Your task to perform on an android device: uninstall "TextNow: Call + Text Unlimited" Image 0: 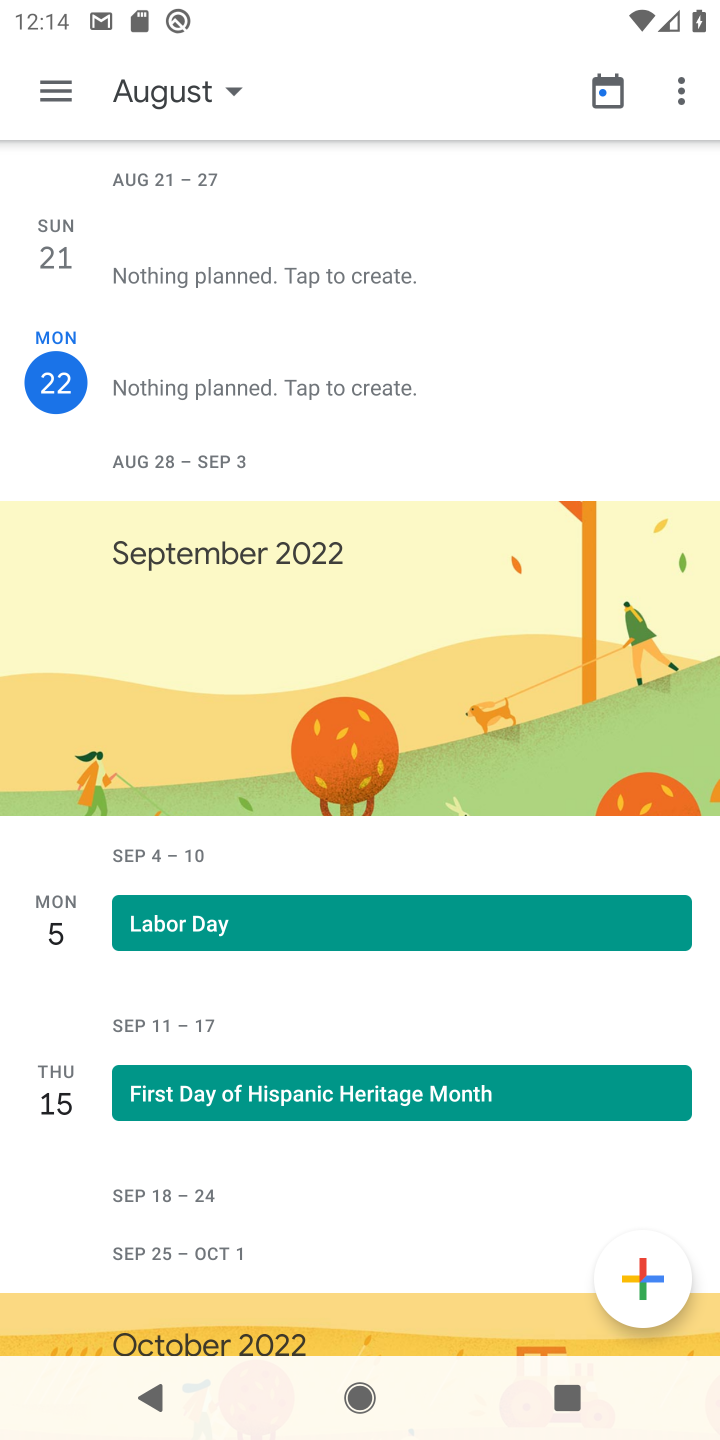
Step 0: press home button
Your task to perform on an android device: uninstall "TextNow: Call + Text Unlimited" Image 1: 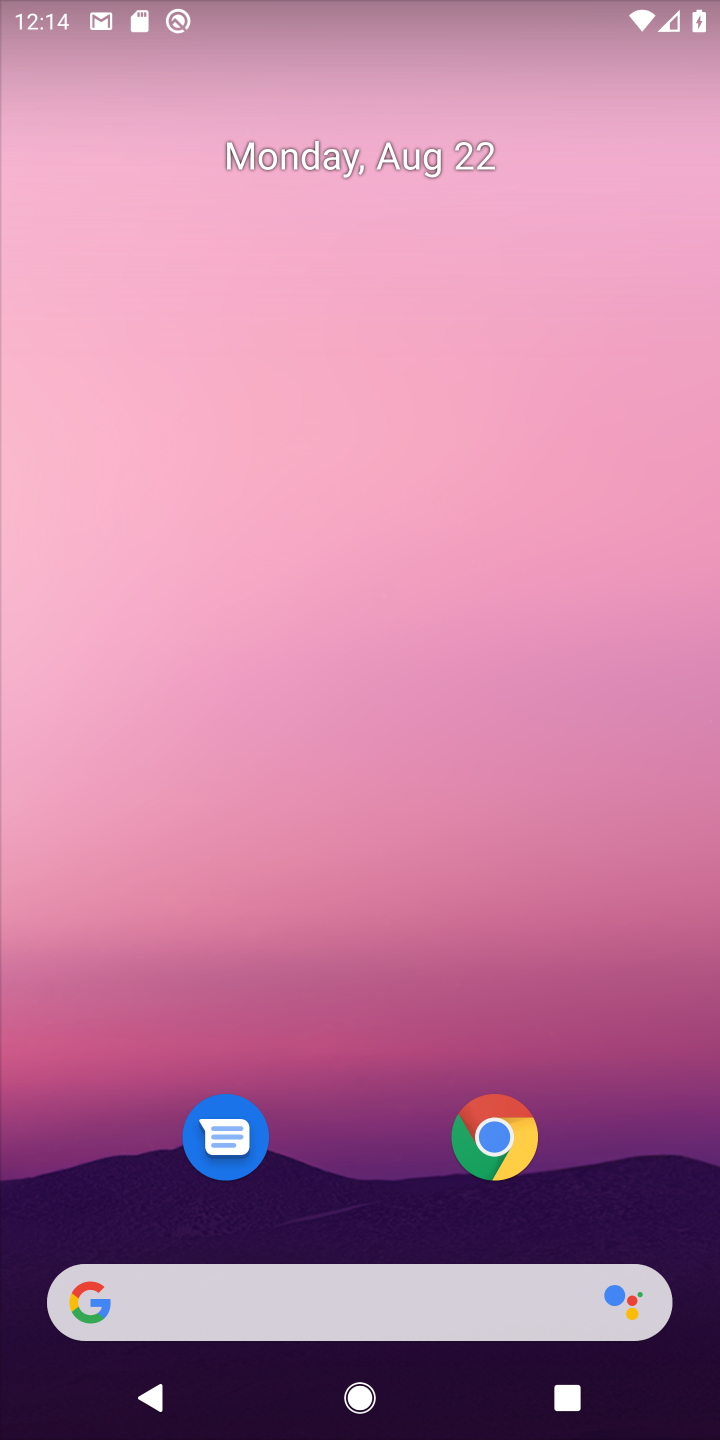
Step 1: drag from (658, 1200) to (572, 133)
Your task to perform on an android device: uninstall "TextNow: Call + Text Unlimited" Image 2: 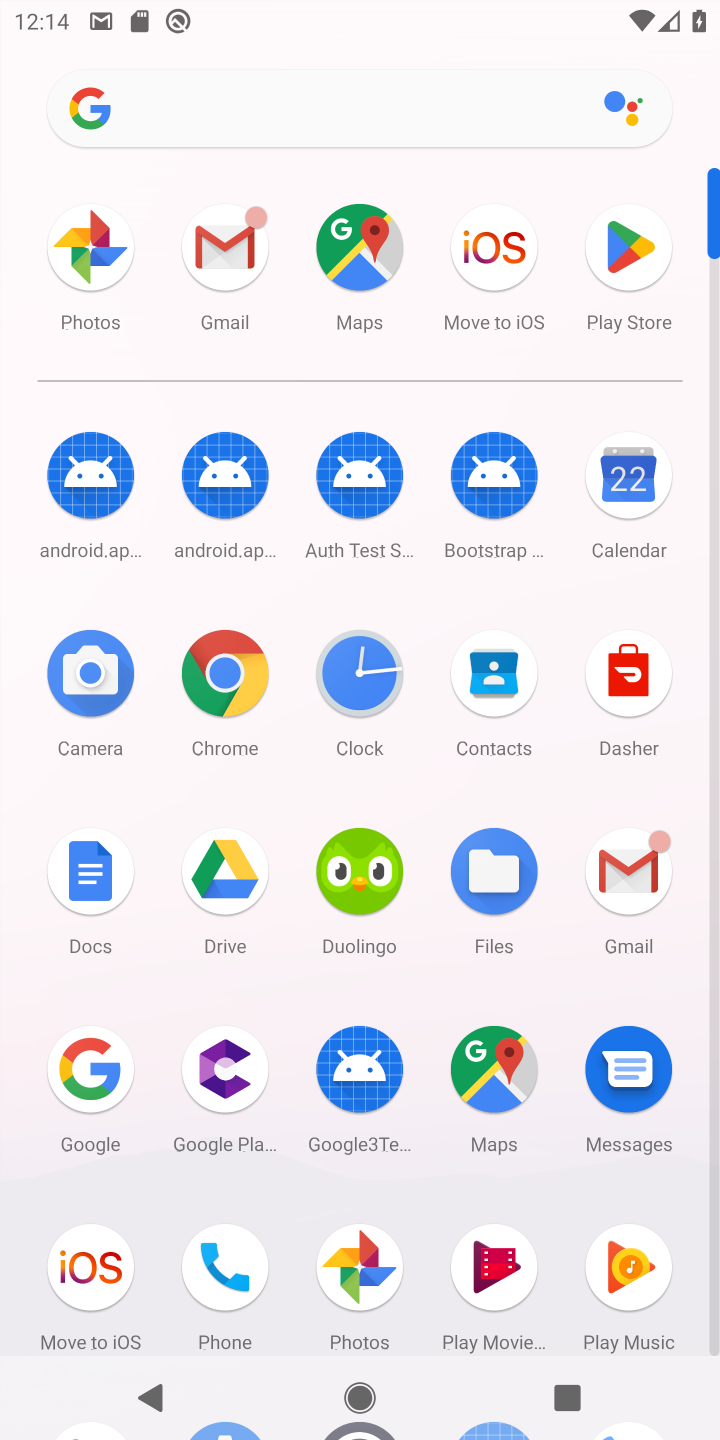
Step 2: drag from (555, 1202) to (549, 321)
Your task to perform on an android device: uninstall "TextNow: Call + Text Unlimited" Image 3: 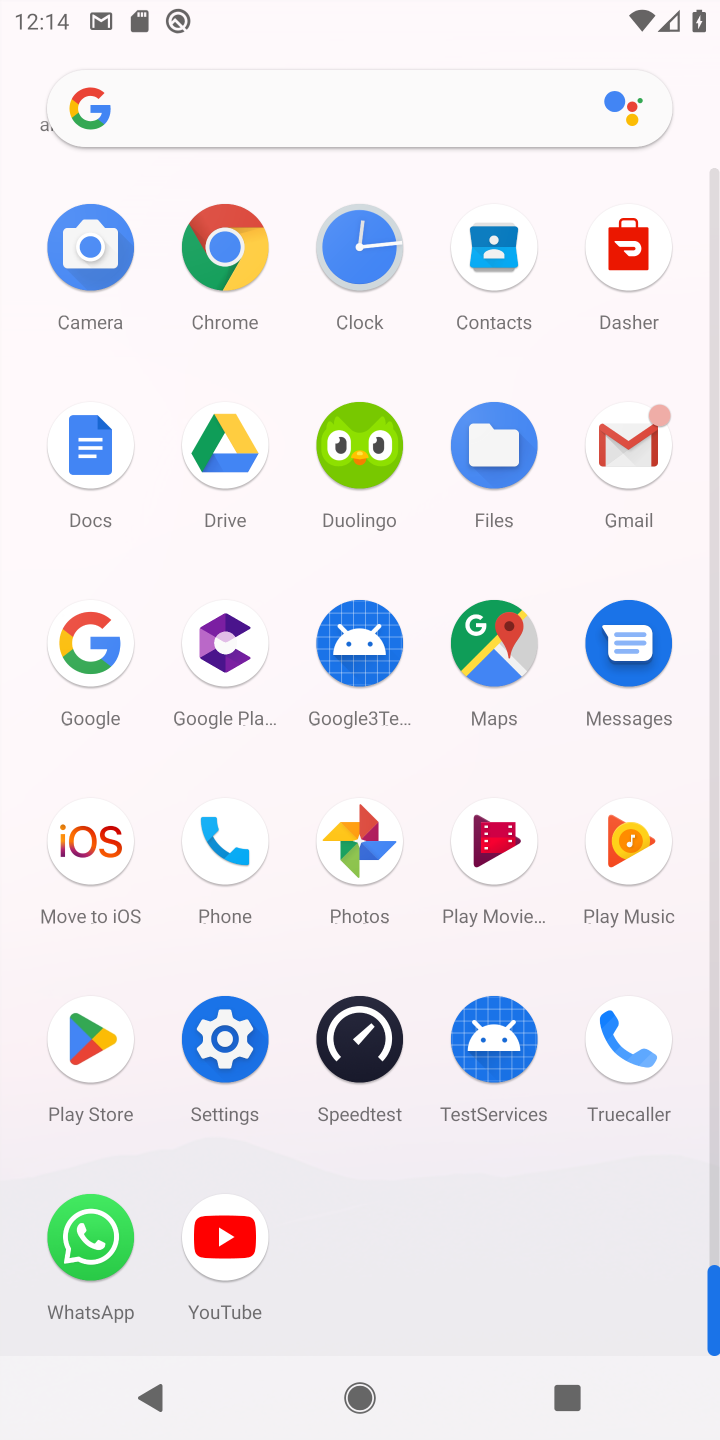
Step 3: click (88, 1034)
Your task to perform on an android device: uninstall "TextNow: Call + Text Unlimited" Image 4: 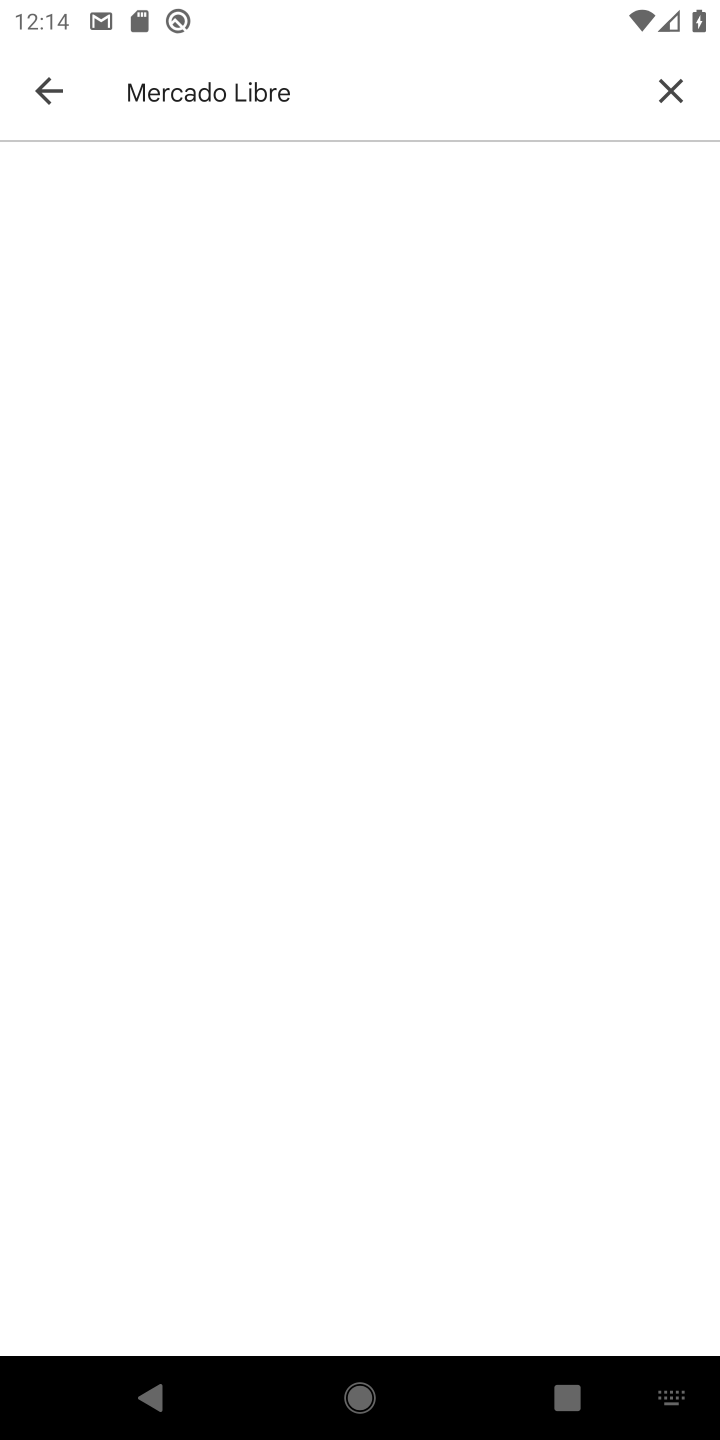
Step 4: click (668, 87)
Your task to perform on an android device: uninstall "TextNow: Call + Text Unlimited" Image 5: 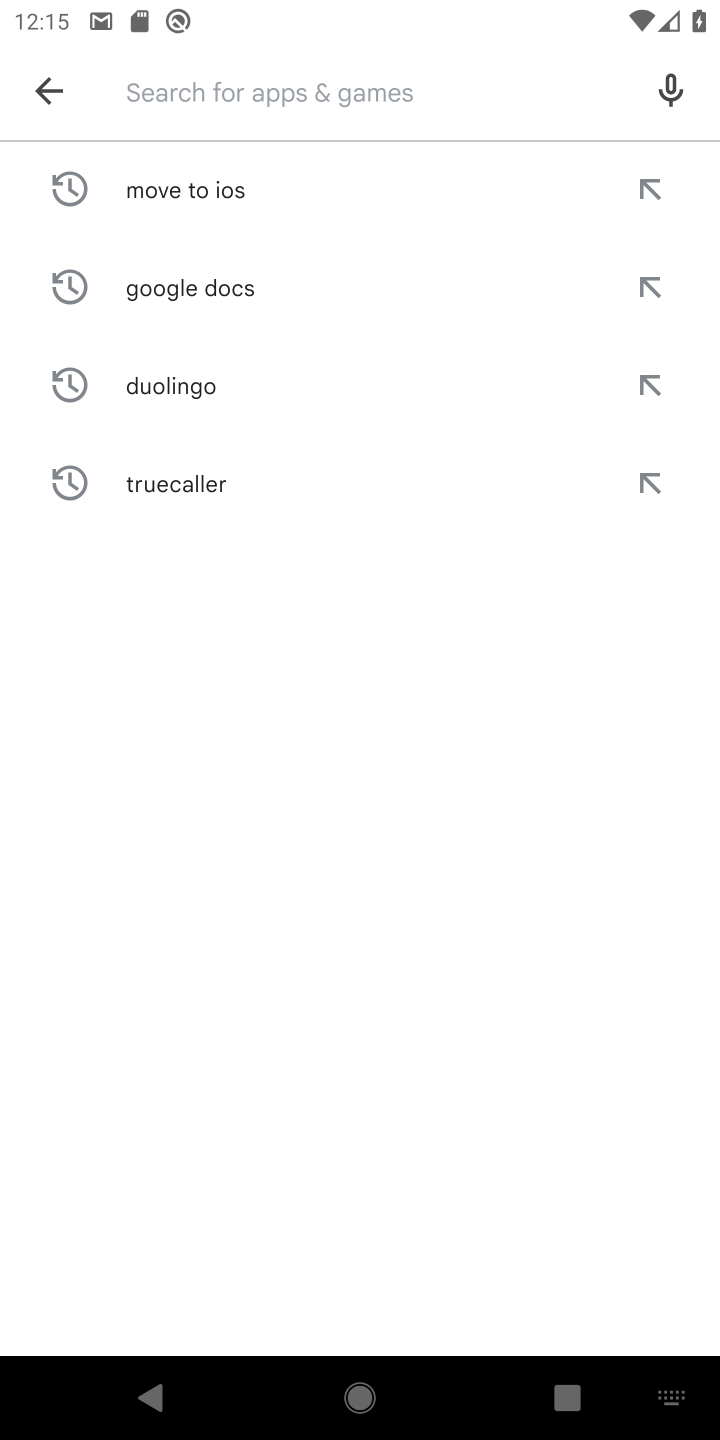
Step 5: type "TextNow: Call + Text Unlimited"
Your task to perform on an android device: uninstall "TextNow: Call + Text Unlimited" Image 6: 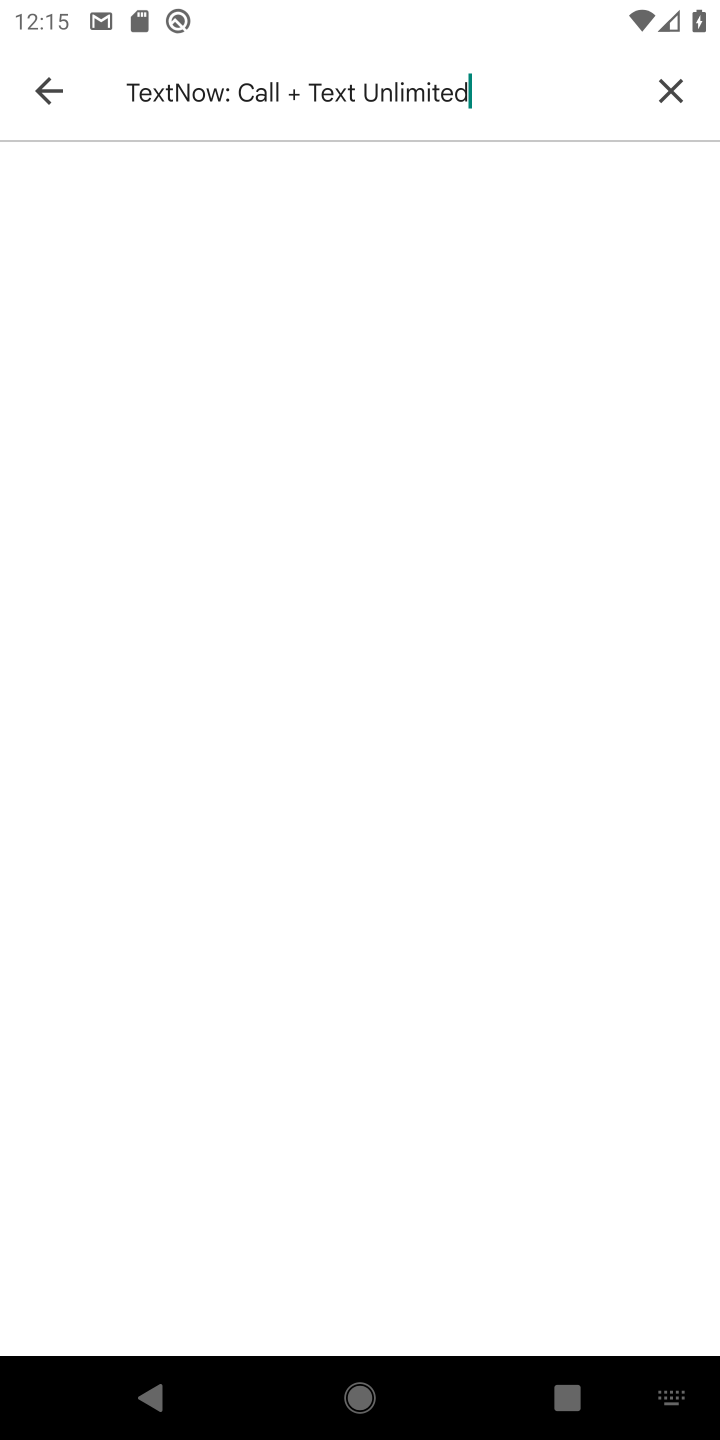
Step 6: task complete